Your task to perform on an android device: What's the weather today? Image 0: 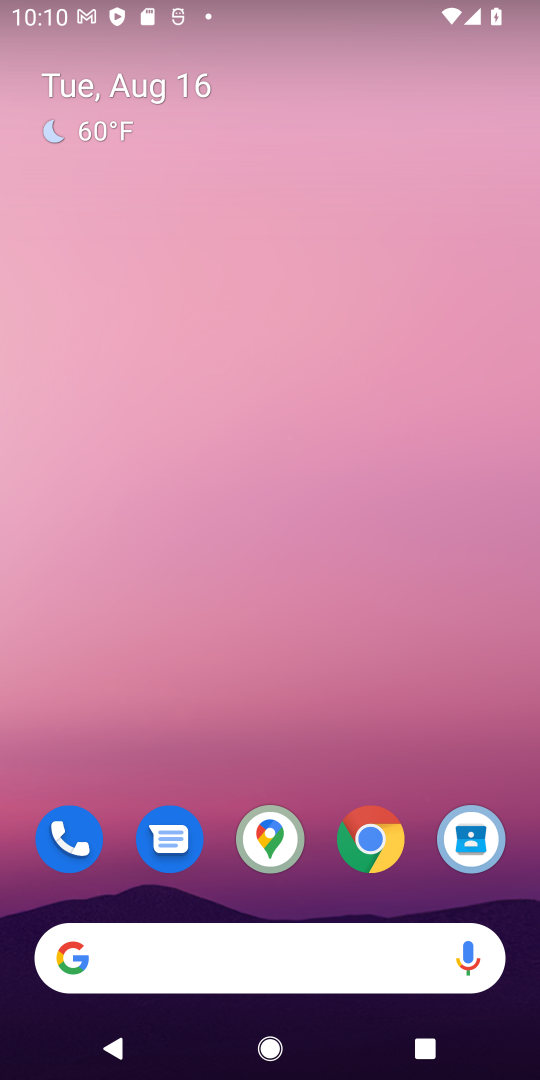
Step 0: click (59, 126)
Your task to perform on an android device: What's the weather today? Image 1: 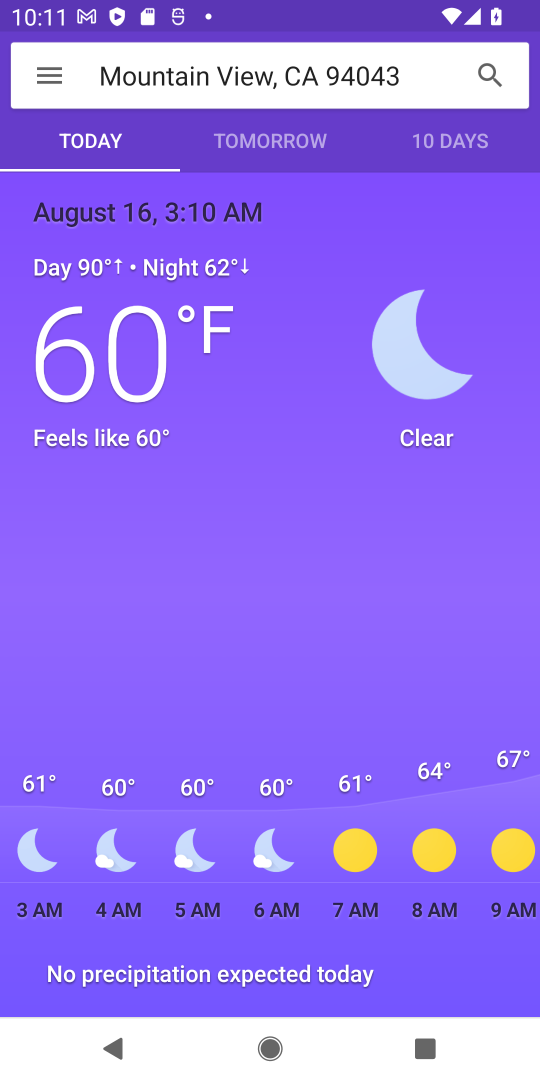
Step 1: task complete